Your task to perform on an android device: Open calendar and show me the first week of next month Image 0: 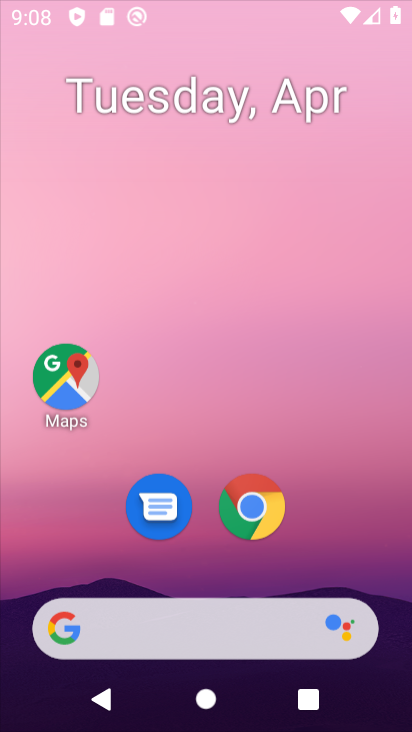
Step 0: drag from (355, 517) to (341, 195)
Your task to perform on an android device: Open calendar and show me the first week of next month Image 1: 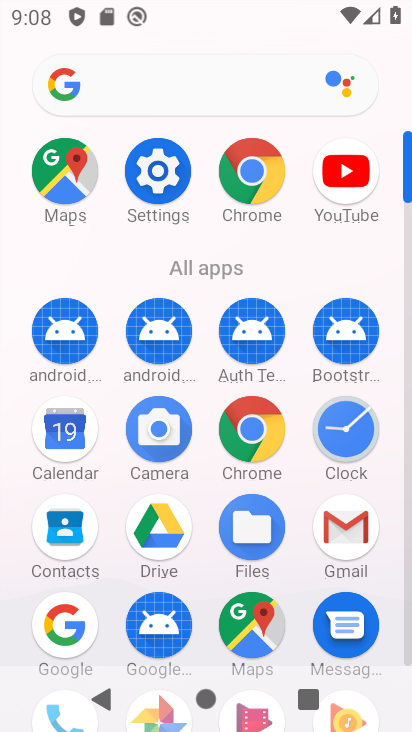
Step 1: press home button
Your task to perform on an android device: Open calendar and show me the first week of next month Image 2: 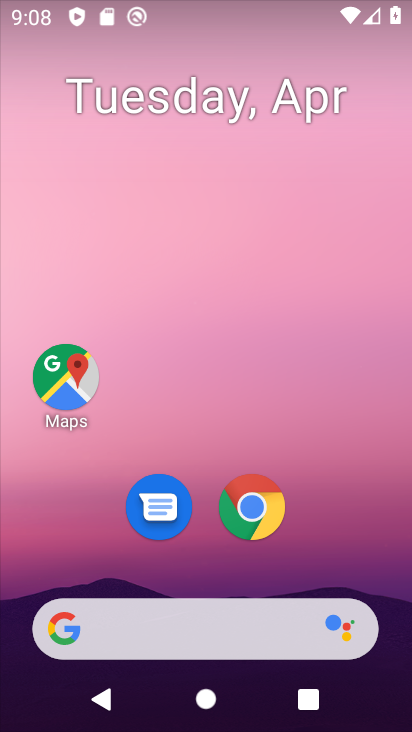
Step 2: drag from (321, 502) to (324, 160)
Your task to perform on an android device: Open calendar and show me the first week of next month Image 3: 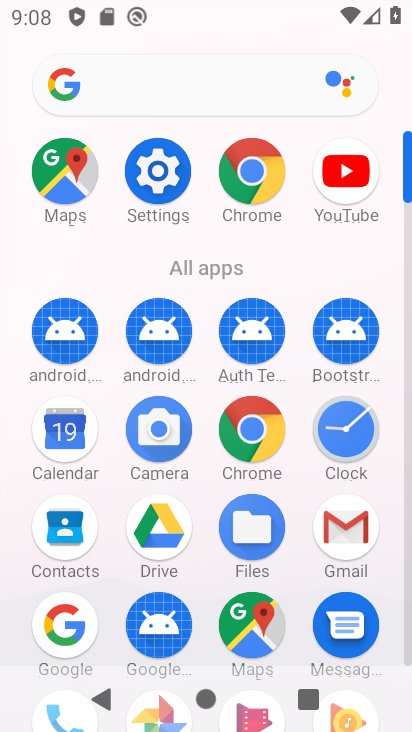
Step 3: click (52, 430)
Your task to perform on an android device: Open calendar and show me the first week of next month Image 4: 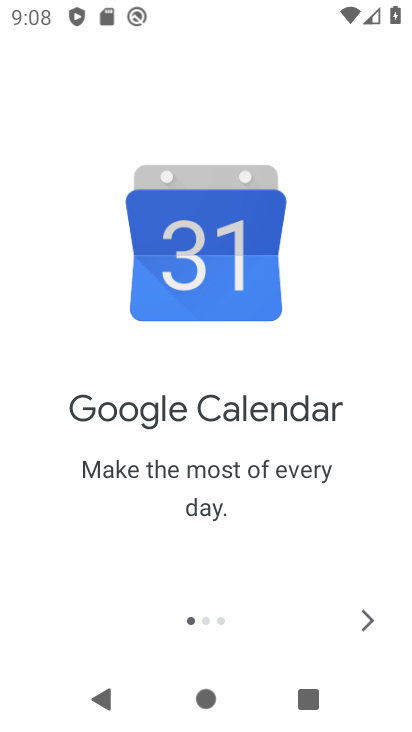
Step 4: click (365, 625)
Your task to perform on an android device: Open calendar and show me the first week of next month Image 5: 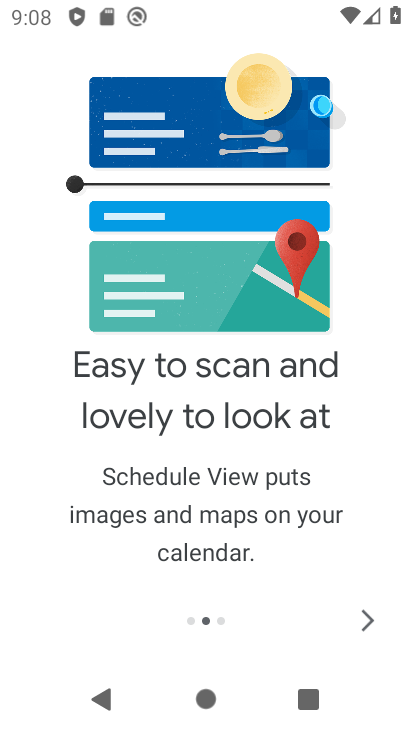
Step 5: click (357, 614)
Your task to perform on an android device: Open calendar and show me the first week of next month Image 6: 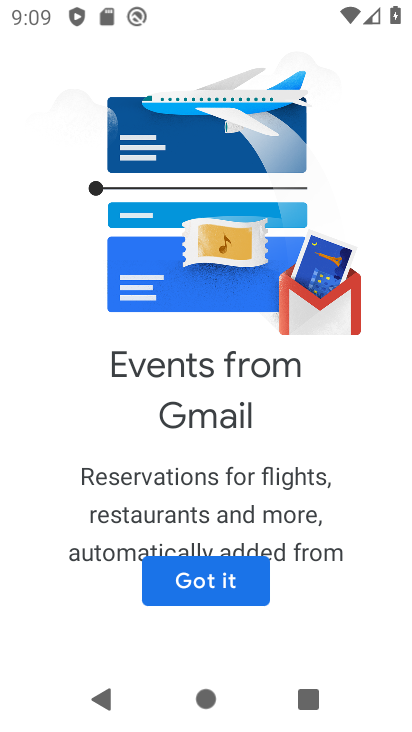
Step 6: click (240, 604)
Your task to perform on an android device: Open calendar and show me the first week of next month Image 7: 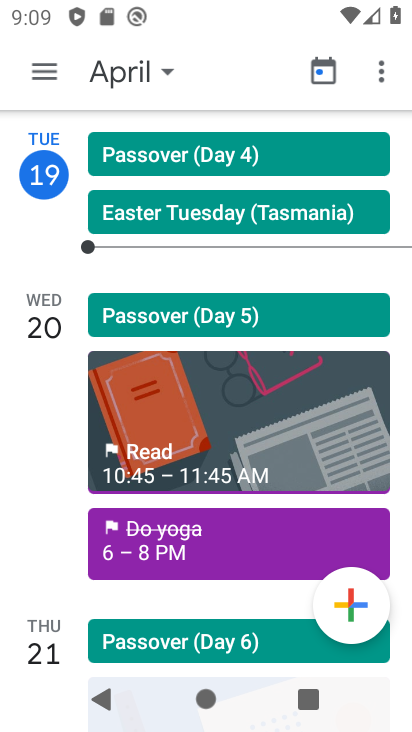
Step 7: click (139, 72)
Your task to perform on an android device: Open calendar and show me the first week of next month Image 8: 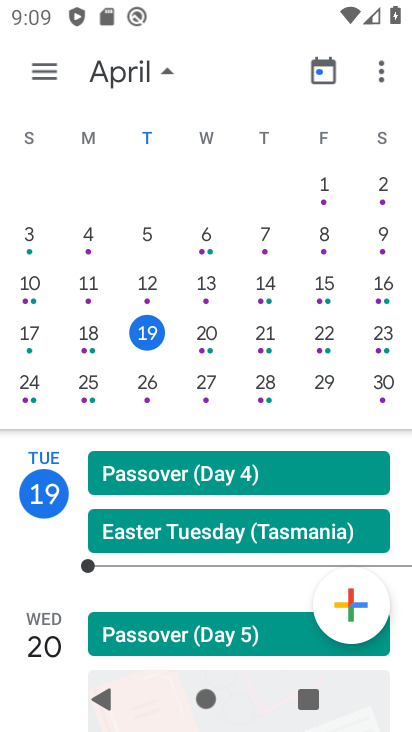
Step 8: drag from (385, 313) to (0, 296)
Your task to perform on an android device: Open calendar and show me the first week of next month Image 9: 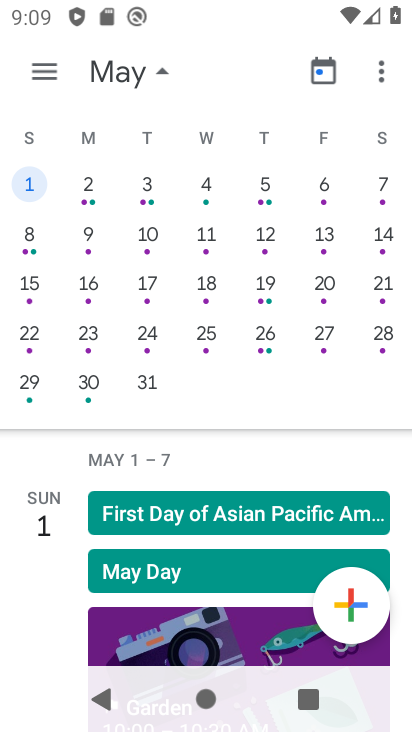
Step 9: click (149, 191)
Your task to perform on an android device: Open calendar and show me the first week of next month Image 10: 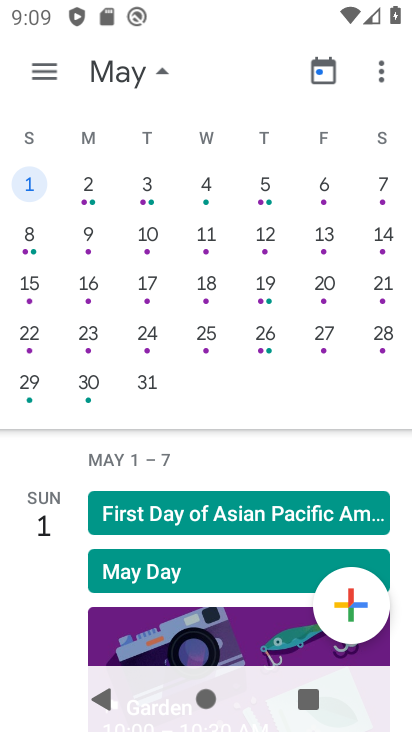
Step 10: click (148, 181)
Your task to perform on an android device: Open calendar and show me the first week of next month Image 11: 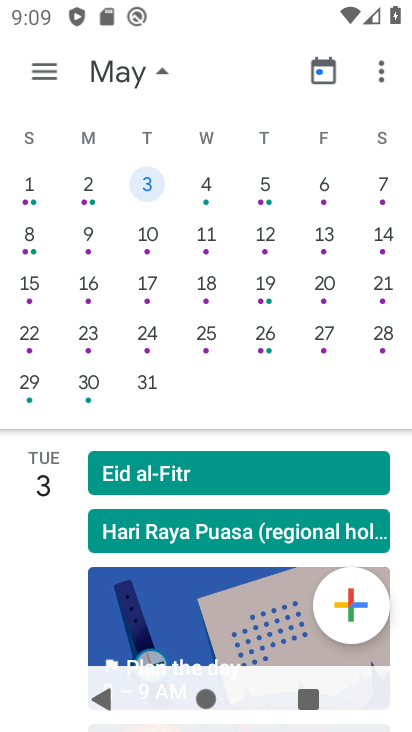
Step 11: task complete